Your task to perform on an android device: check storage Image 0: 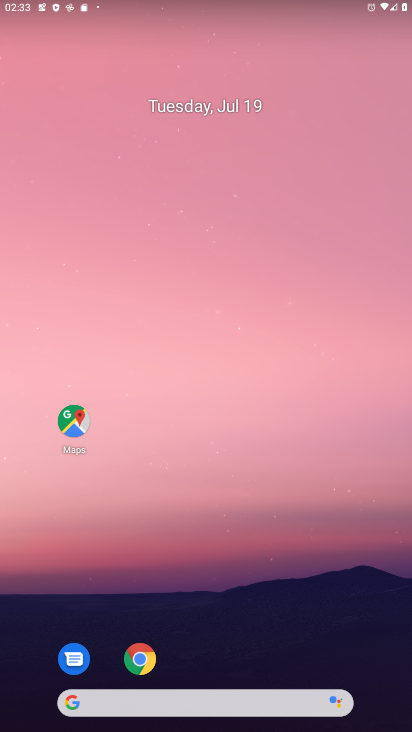
Step 0: press home button
Your task to perform on an android device: check storage Image 1: 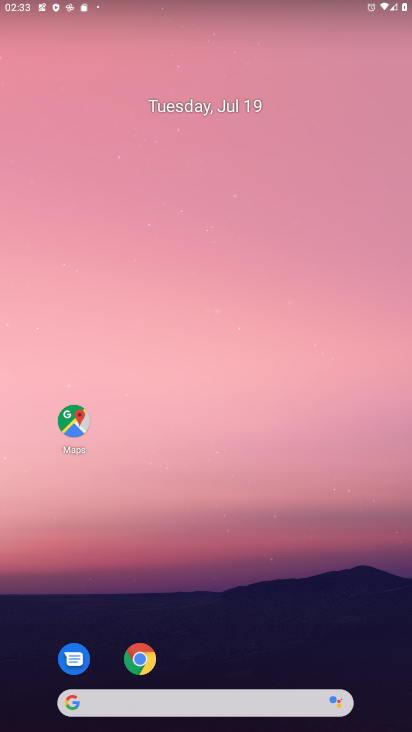
Step 1: drag from (258, 635) to (293, 72)
Your task to perform on an android device: check storage Image 2: 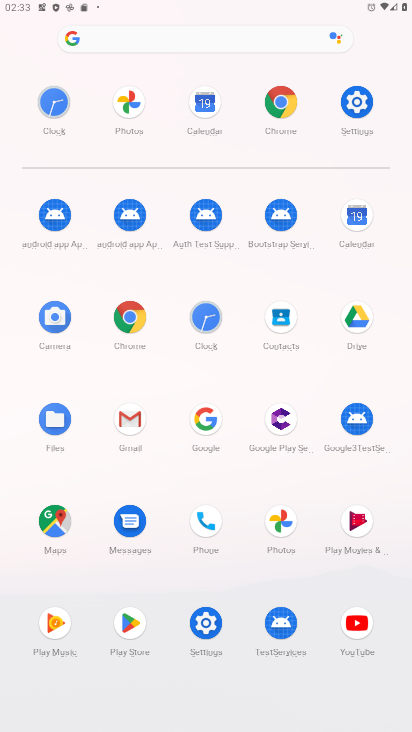
Step 2: click (375, 94)
Your task to perform on an android device: check storage Image 3: 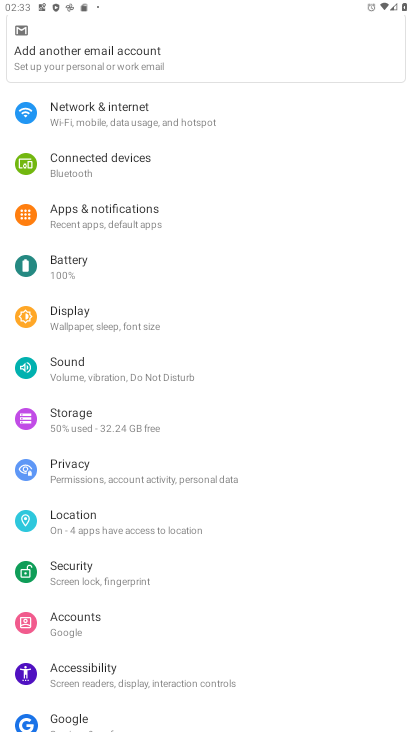
Step 3: click (89, 413)
Your task to perform on an android device: check storage Image 4: 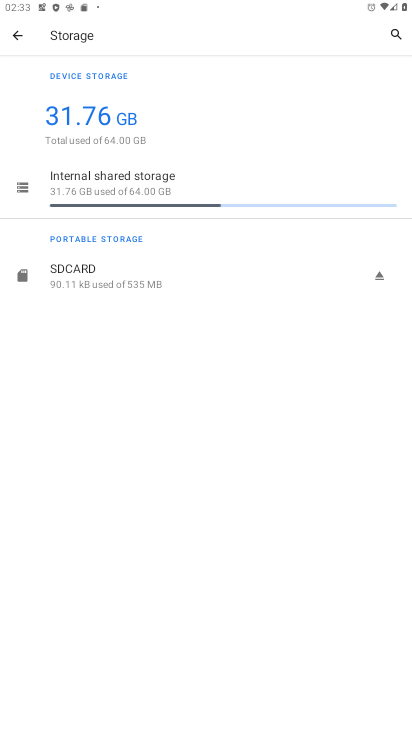
Step 4: task complete